Your task to perform on an android device: check android version Image 0: 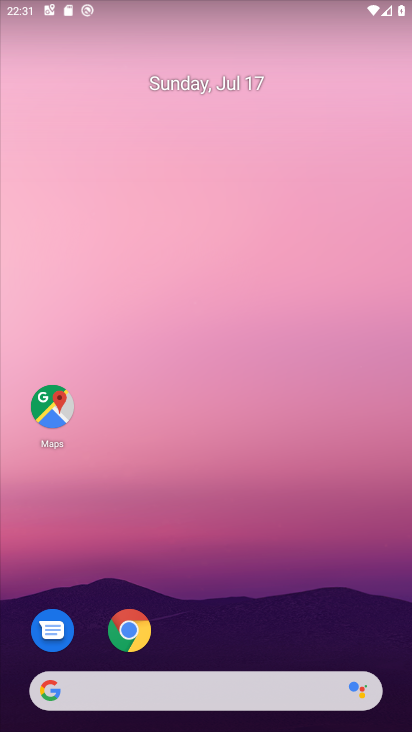
Step 0: drag from (219, 632) to (202, 87)
Your task to perform on an android device: check android version Image 1: 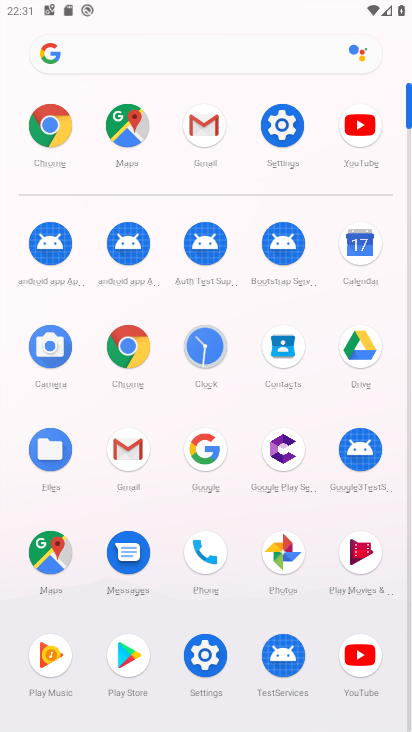
Step 1: click (210, 665)
Your task to perform on an android device: check android version Image 2: 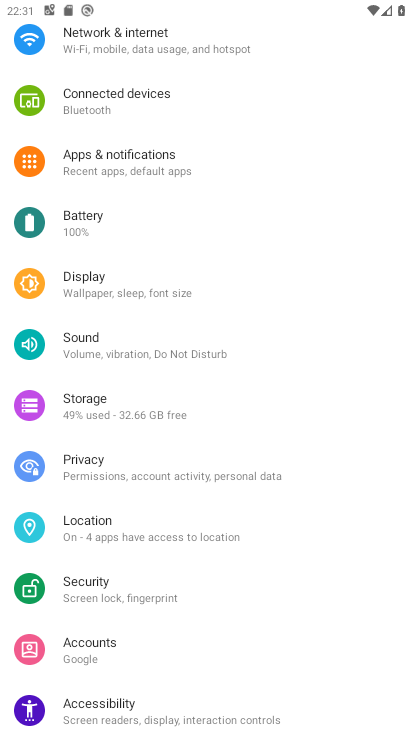
Step 2: drag from (140, 601) to (174, 198)
Your task to perform on an android device: check android version Image 3: 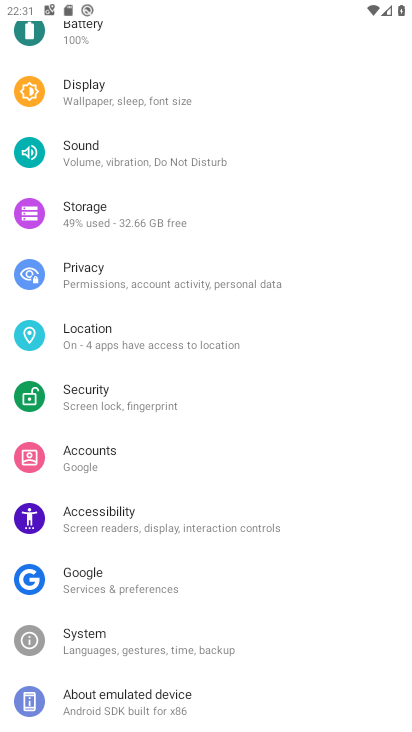
Step 3: click (118, 706)
Your task to perform on an android device: check android version Image 4: 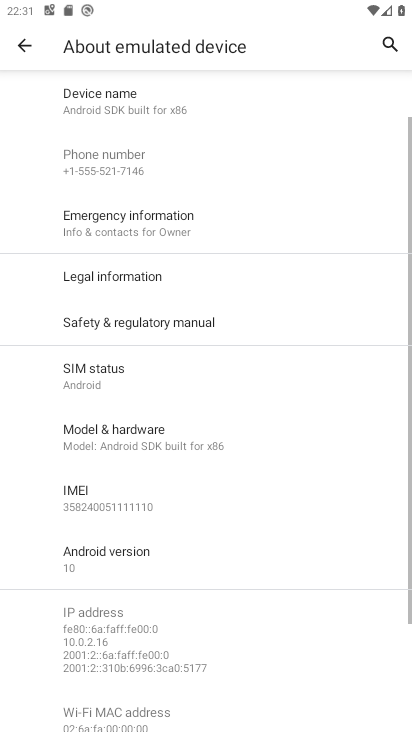
Step 4: click (101, 560)
Your task to perform on an android device: check android version Image 5: 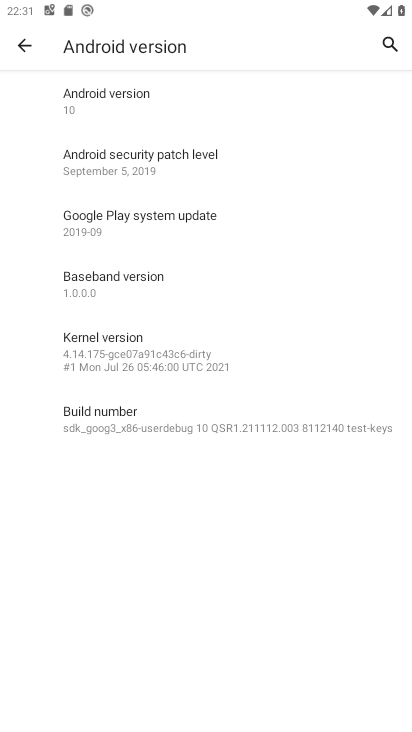
Step 5: task complete